Your task to perform on an android device: change your default location settings in chrome Image 0: 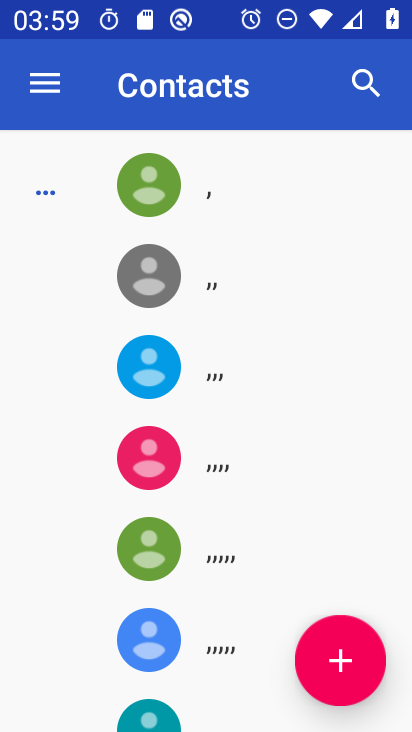
Step 0: press home button
Your task to perform on an android device: change your default location settings in chrome Image 1: 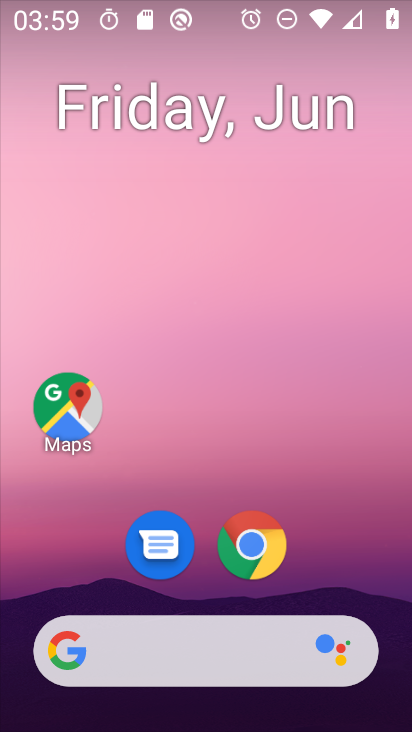
Step 1: click (267, 541)
Your task to perform on an android device: change your default location settings in chrome Image 2: 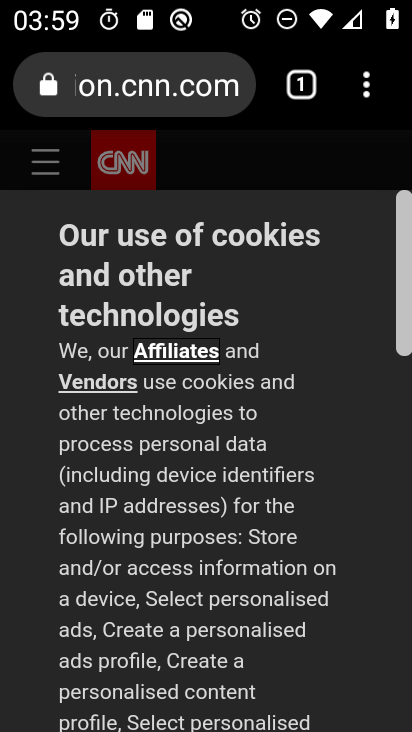
Step 2: click (360, 89)
Your task to perform on an android device: change your default location settings in chrome Image 3: 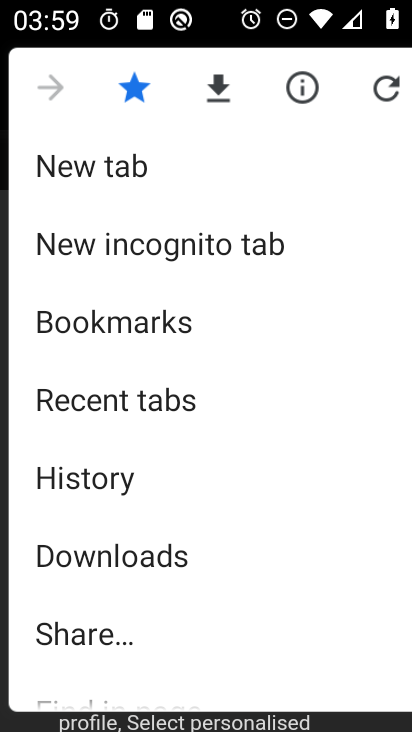
Step 3: drag from (85, 640) to (120, 249)
Your task to perform on an android device: change your default location settings in chrome Image 4: 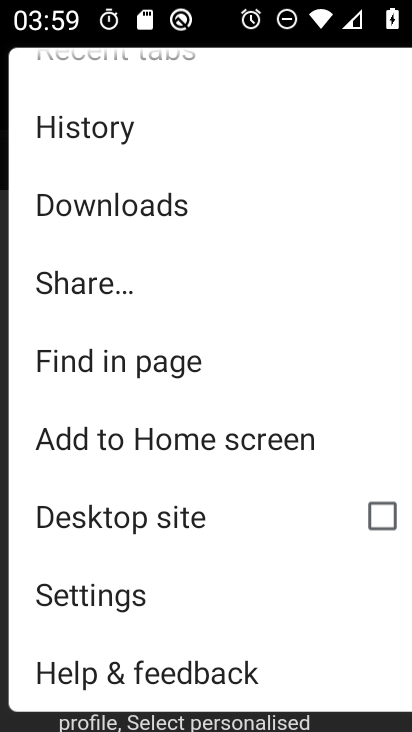
Step 4: click (125, 588)
Your task to perform on an android device: change your default location settings in chrome Image 5: 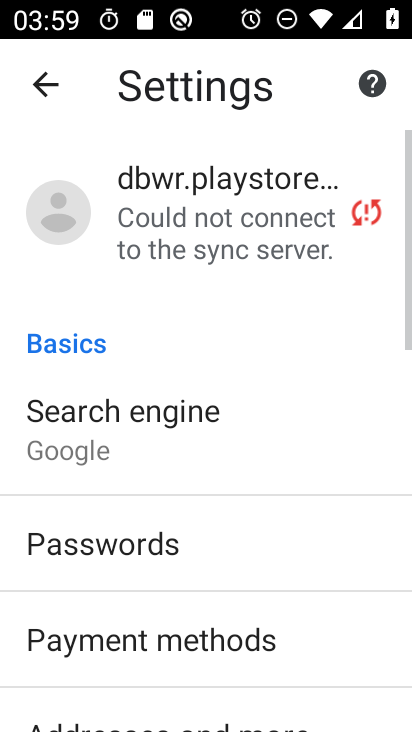
Step 5: drag from (247, 666) to (284, 184)
Your task to perform on an android device: change your default location settings in chrome Image 6: 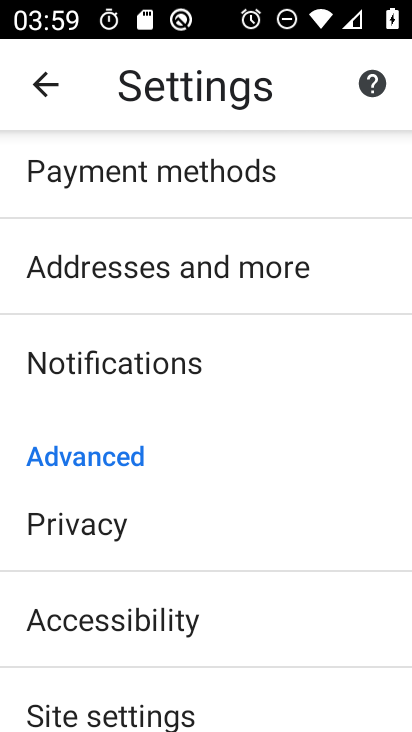
Step 6: drag from (175, 666) to (154, 276)
Your task to perform on an android device: change your default location settings in chrome Image 7: 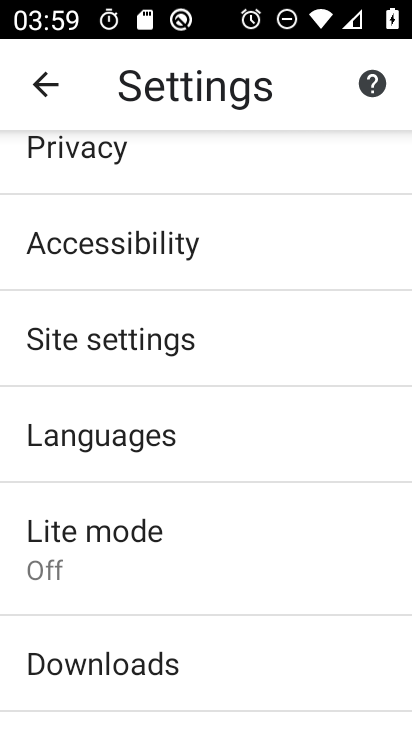
Step 7: click (156, 332)
Your task to perform on an android device: change your default location settings in chrome Image 8: 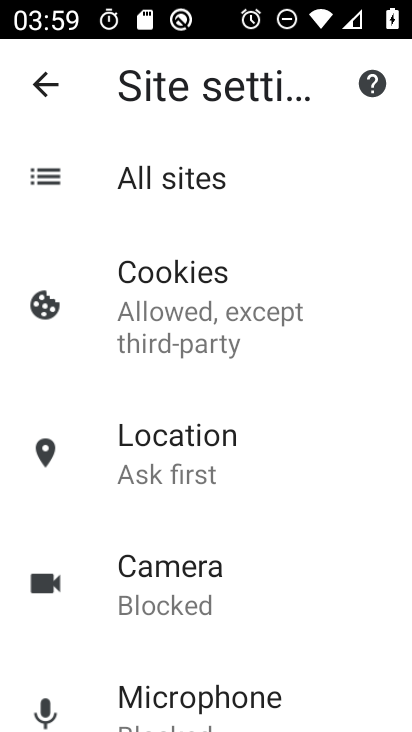
Step 8: click (239, 467)
Your task to perform on an android device: change your default location settings in chrome Image 9: 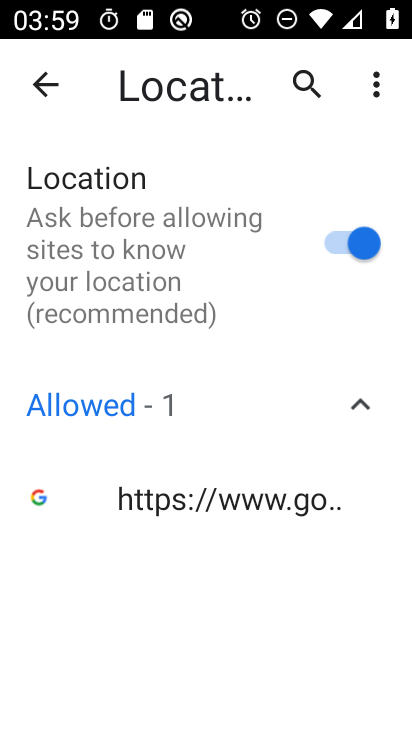
Step 9: click (345, 235)
Your task to perform on an android device: change your default location settings in chrome Image 10: 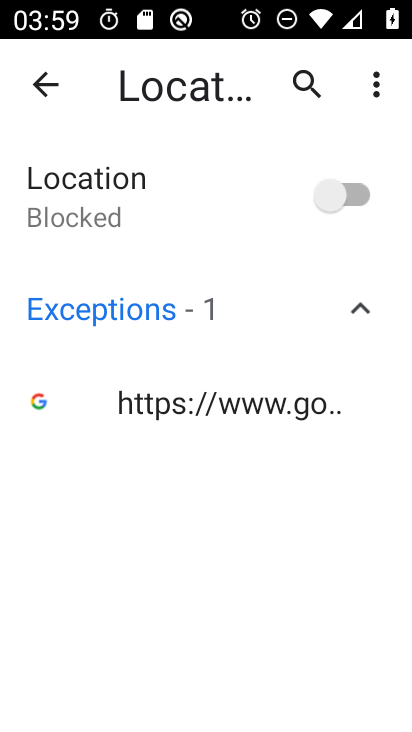
Step 10: task complete